Your task to perform on an android device: Clear the cart on bestbuy.com. Add "logitech g pro" to the cart on bestbuy.com, then select checkout. Image 0: 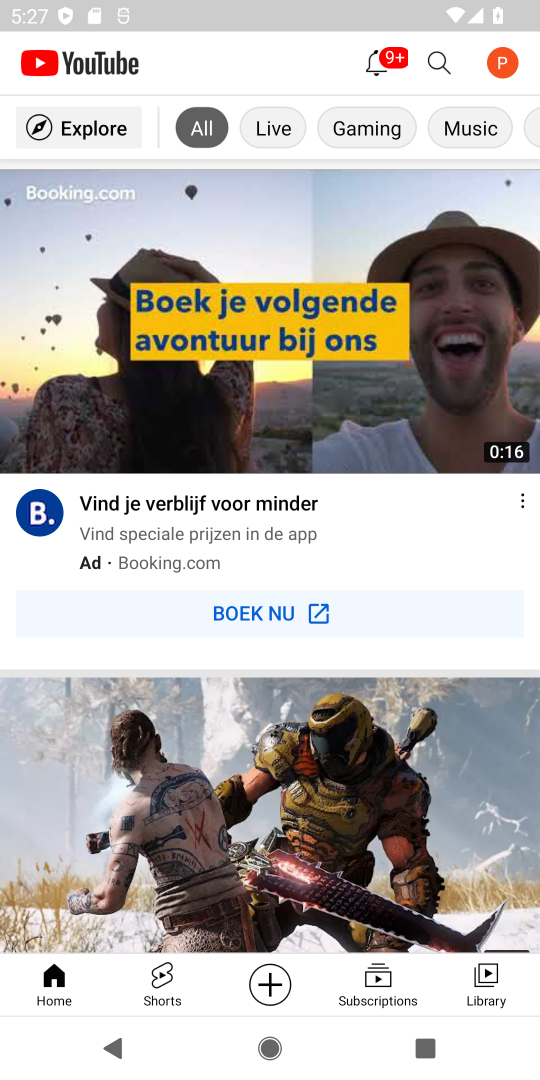
Step 0: press home button
Your task to perform on an android device: Clear the cart on bestbuy.com. Add "logitech g pro" to the cart on bestbuy.com, then select checkout. Image 1: 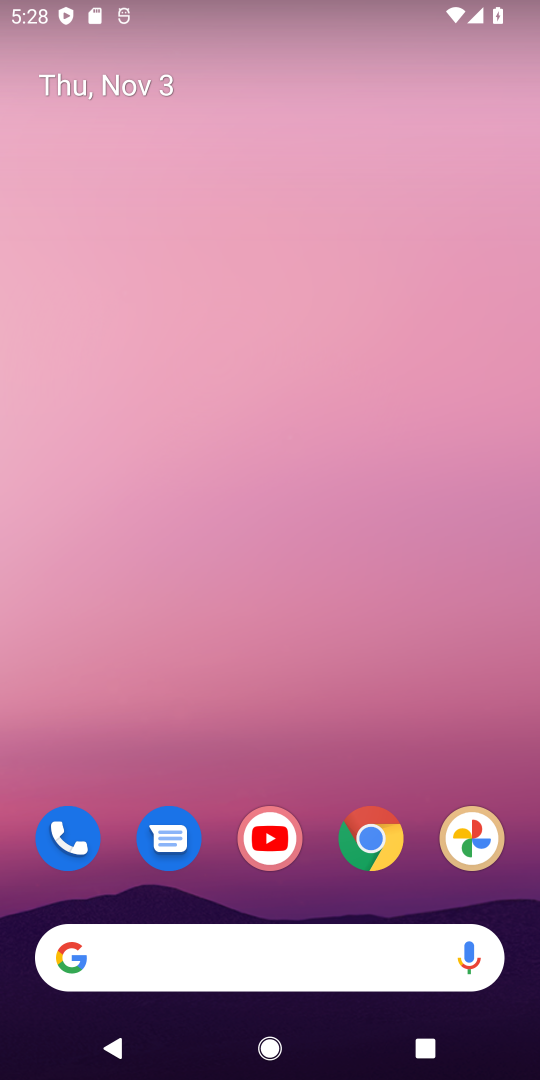
Step 1: click (367, 843)
Your task to perform on an android device: Clear the cart on bestbuy.com. Add "logitech g pro" to the cart on bestbuy.com, then select checkout. Image 2: 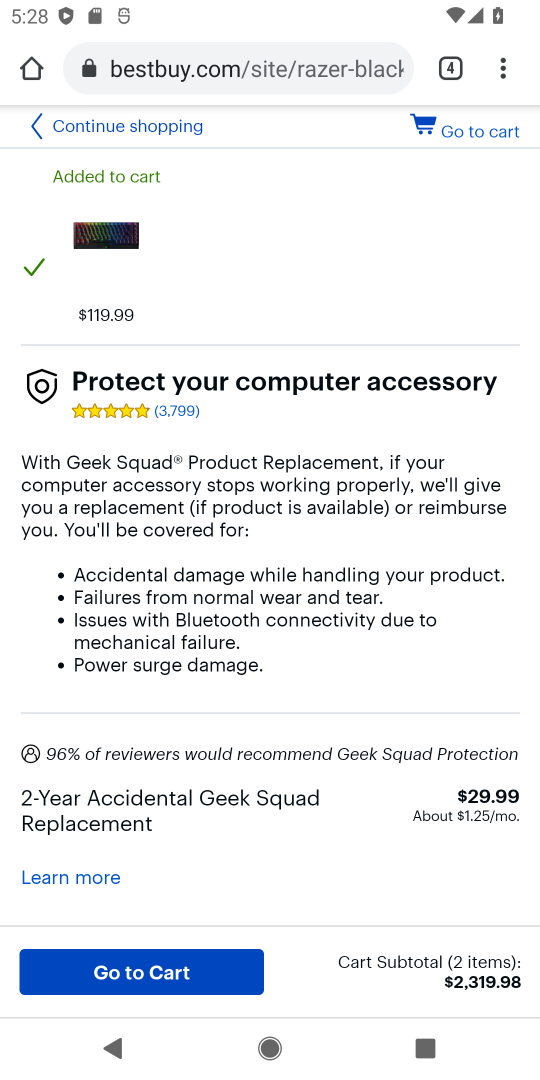
Step 2: click (131, 125)
Your task to perform on an android device: Clear the cart on bestbuy.com. Add "logitech g pro" to the cart on bestbuy.com, then select checkout. Image 3: 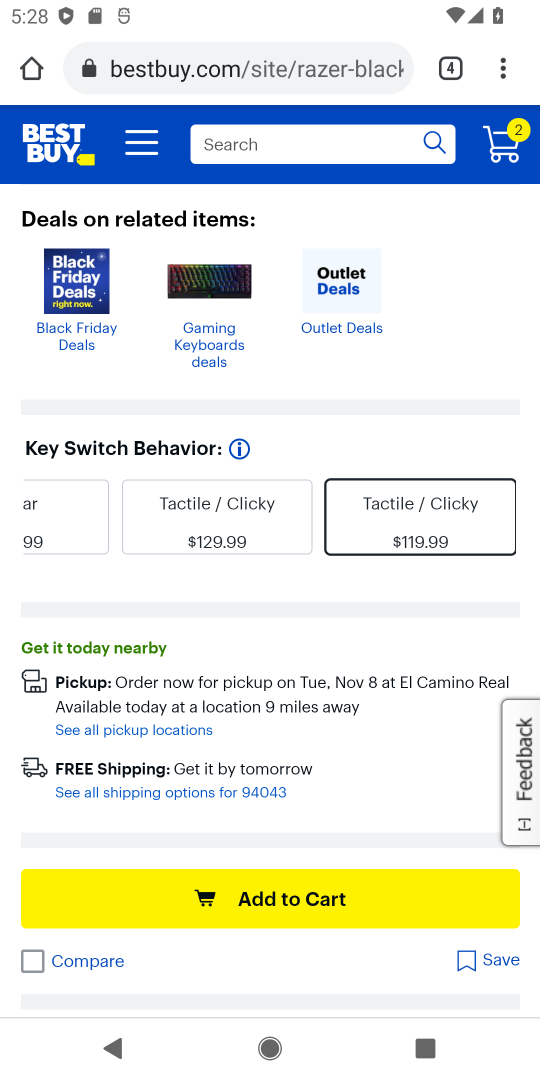
Step 3: click (244, 140)
Your task to perform on an android device: Clear the cart on bestbuy.com. Add "logitech g pro" to the cart on bestbuy.com, then select checkout. Image 4: 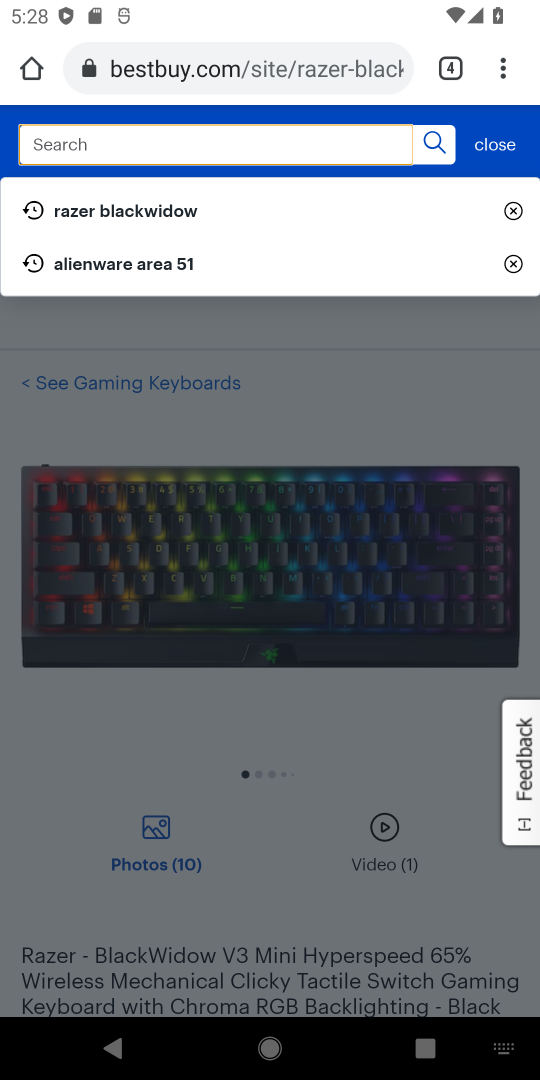
Step 4: type "logitech g pro"
Your task to perform on an android device: Clear the cart on bestbuy.com. Add "logitech g pro" to the cart on bestbuy.com, then select checkout. Image 5: 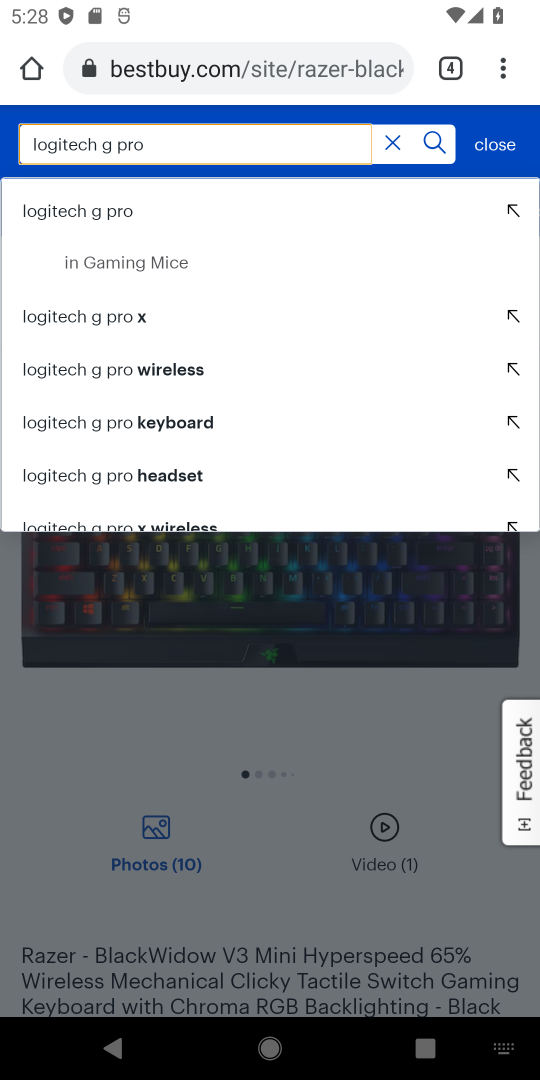
Step 5: click (103, 205)
Your task to perform on an android device: Clear the cart on bestbuy.com. Add "logitech g pro" to the cart on bestbuy.com, then select checkout. Image 6: 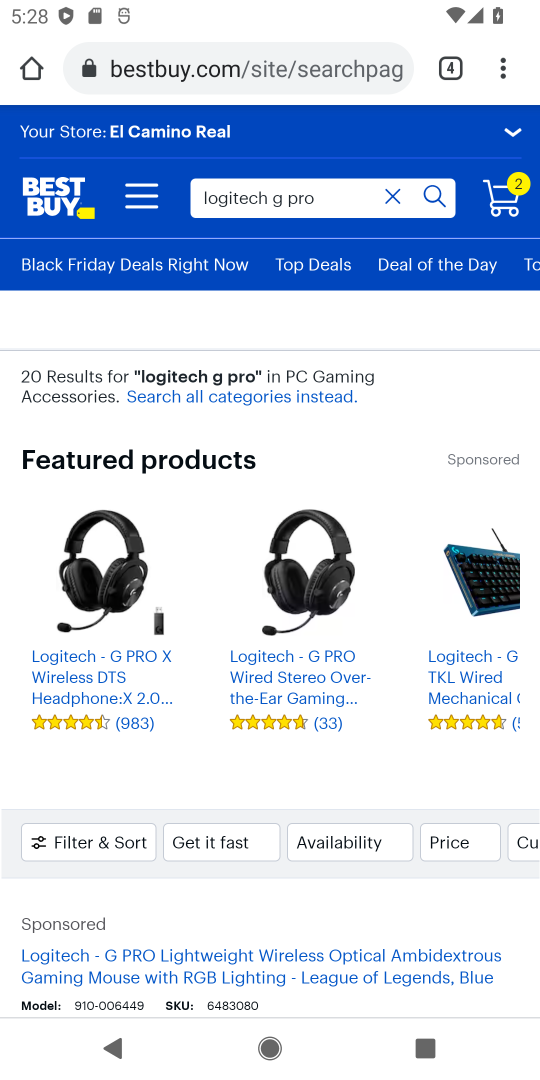
Step 6: drag from (242, 923) to (296, 417)
Your task to perform on an android device: Clear the cart on bestbuy.com. Add "logitech g pro" to the cart on bestbuy.com, then select checkout. Image 7: 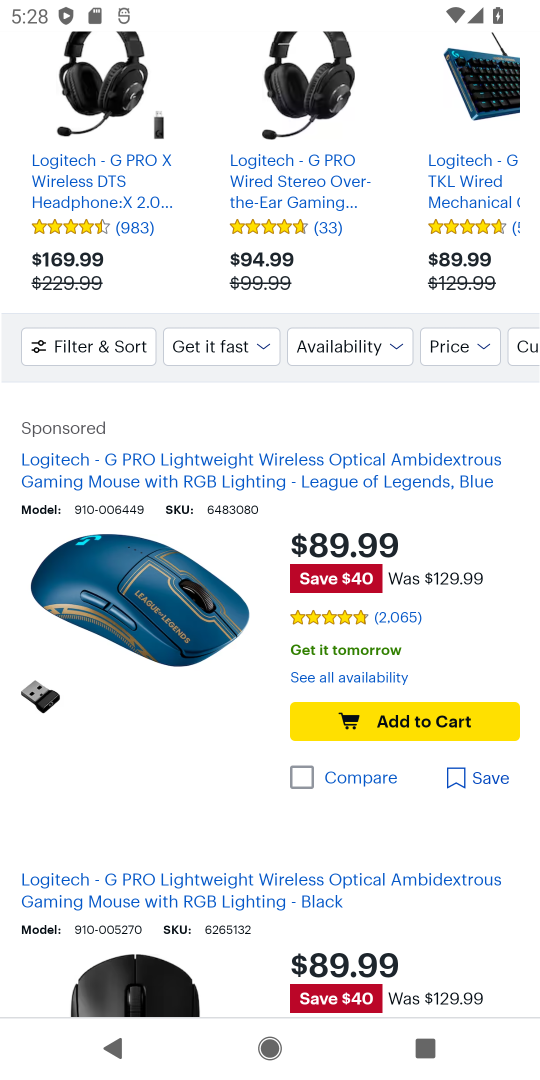
Step 7: click (385, 726)
Your task to perform on an android device: Clear the cart on bestbuy.com. Add "logitech g pro" to the cart on bestbuy.com, then select checkout. Image 8: 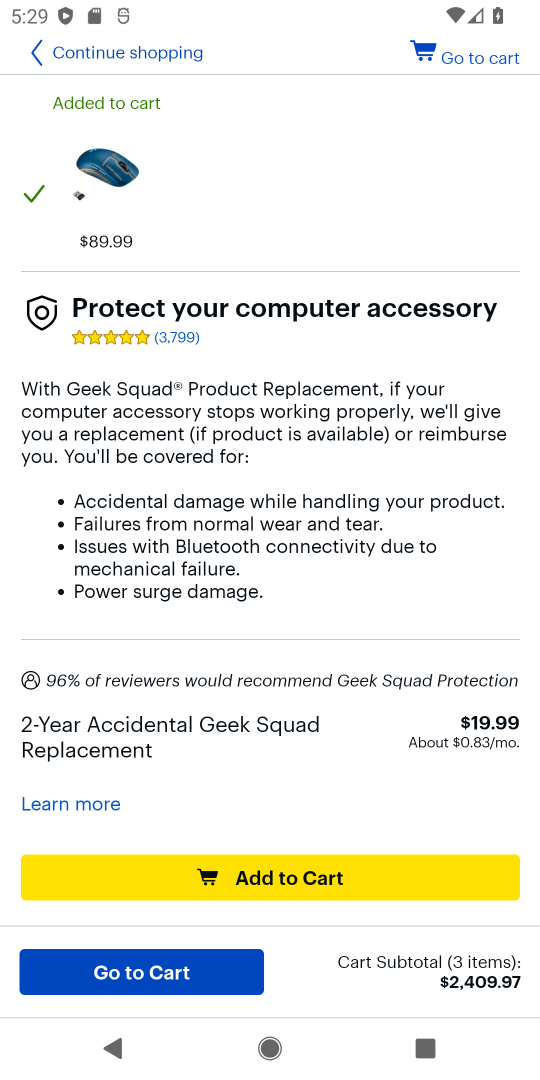
Step 8: click (146, 51)
Your task to perform on an android device: Clear the cart on bestbuy.com. Add "logitech g pro" to the cart on bestbuy.com, then select checkout. Image 9: 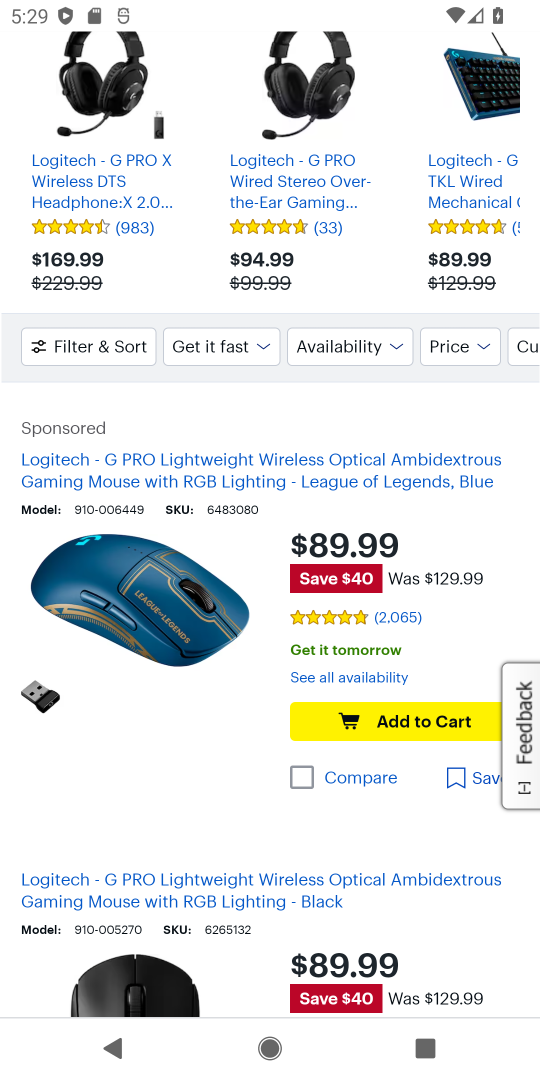
Step 9: drag from (403, 101) to (484, 1040)
Your task to perform on an android device: Clear the cart on bestbuy.com. Add "logitech g pro" to the cart on bestbuy.com, then select checkout. Image 10: 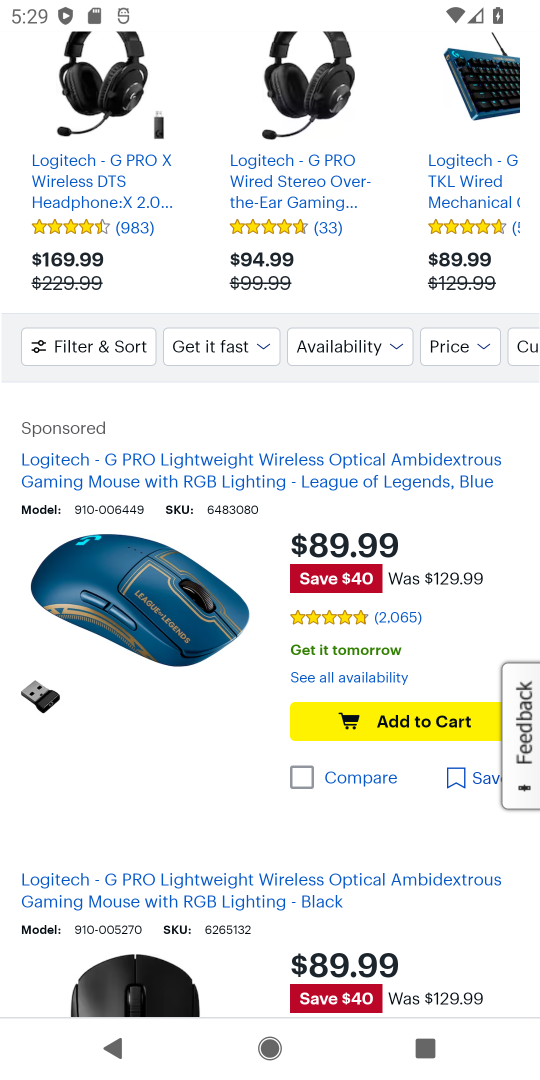
Step 10: drag from (380, 289) to (362, 888)
Your task to perform on an android device: Clear the cart on bestbuy.com. Add "logitech g pro" to the cart on bestbuy.com, then select checkout. Image 11: 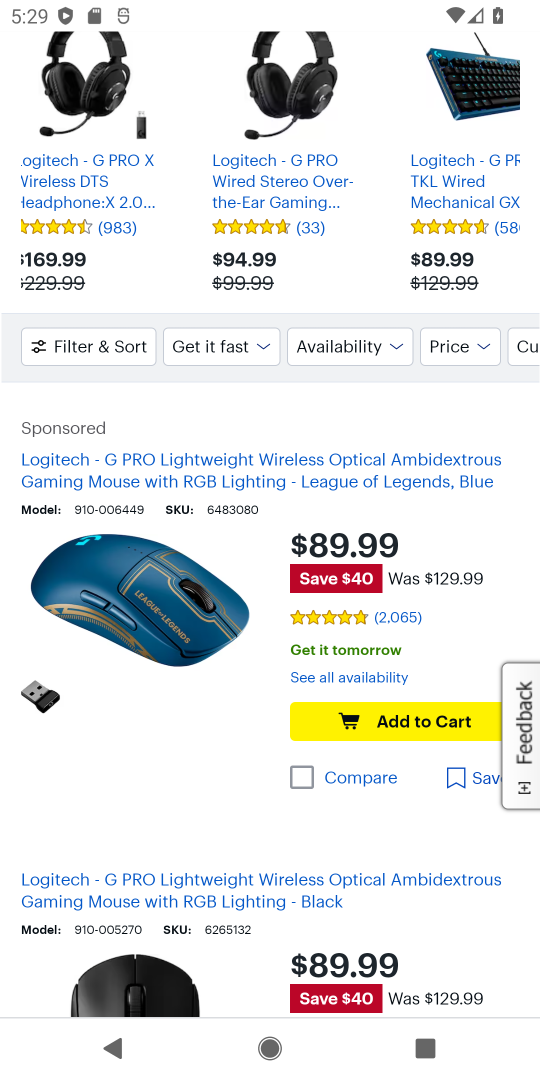
Step 11: drag from (389, 80) to (303, 955)
Your task to perform on an android device: Clear the cart on bestbuy.com. Add "logitech g pro" to the cart on bestbuy.com, then select checkout. Image 12: 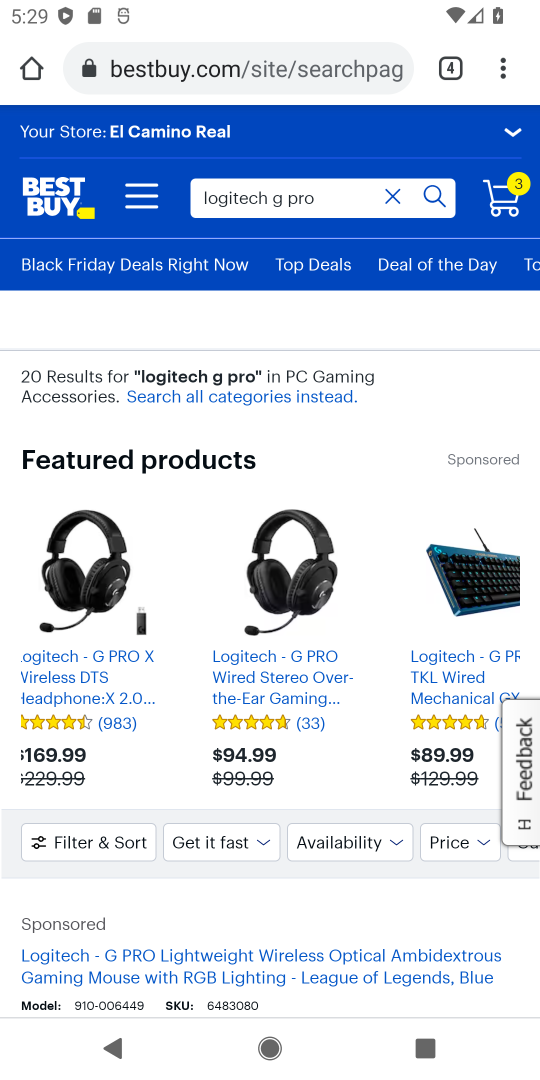
Step 12: click (507, 191)
Your task to perform on an android device: Clear the cart on bestbuy.com. Add "logitech g pro" to the cart on bestbuy.com, then select checkout. Image 13: 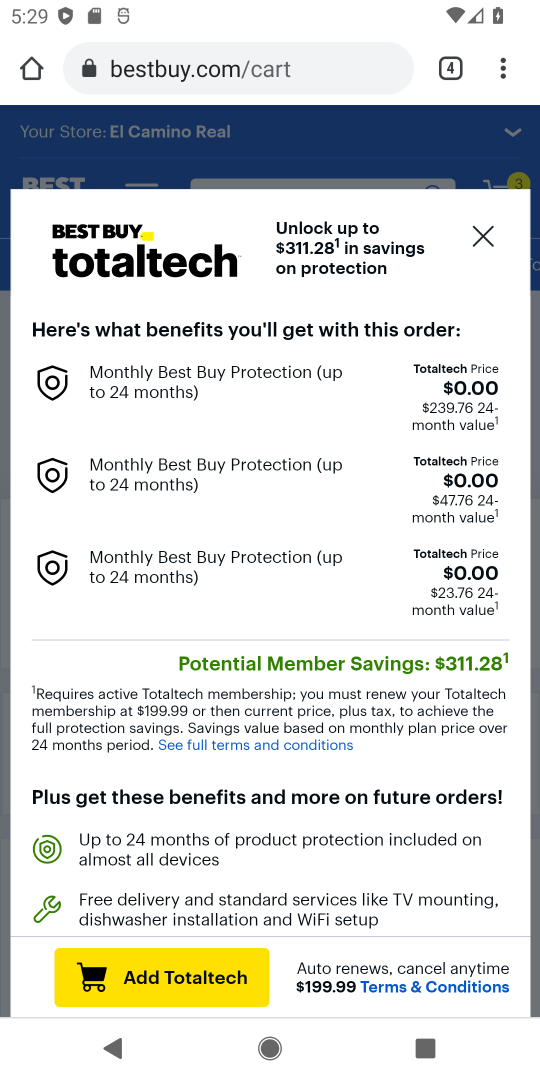
Step 13: click (484, 234)
Your task to perform on an android device: Clear the cart on bestbuy.com. Add "logitech g pro" to the cart on bestbuy.com, then select checkout. Image 14: 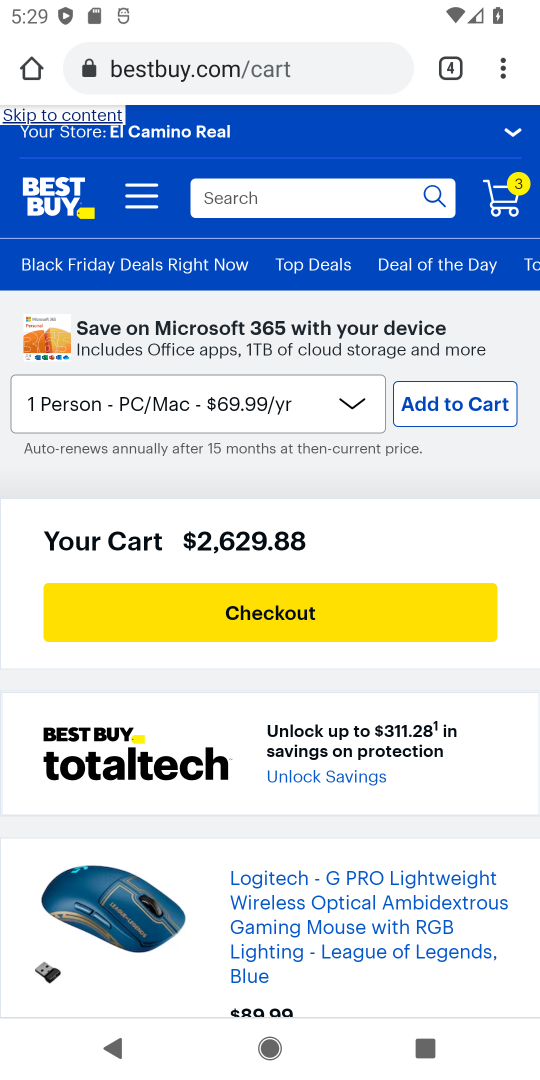
Step 14: click (242, 610)
Your task to perform on an android device: Clear the cart on bestbuy.com. Add "logitech g pro" to the cart on bestbuy.com, then select checkout. Image 15: 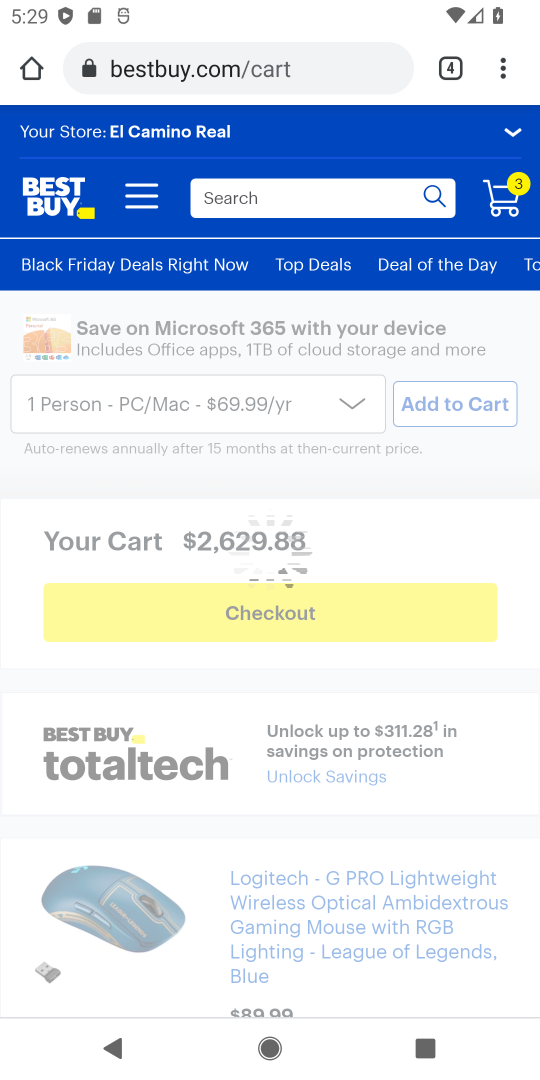
Step 15: task complete